Your task to perform on an android device: Search for seafood restaurants on Google Maps Image 0: 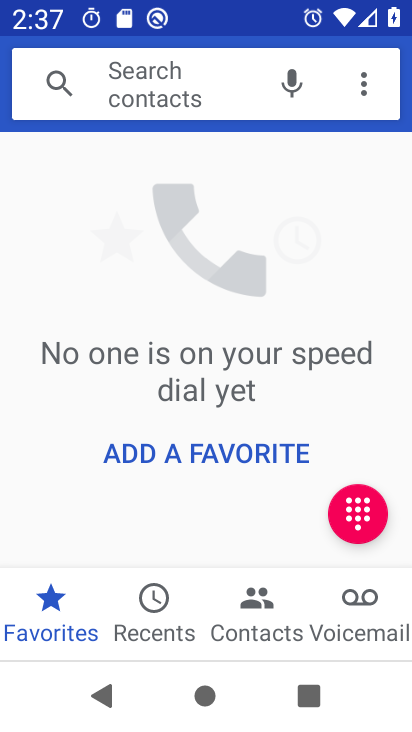
Step 0: press home button
Your task to perform on an android device: Search for seafood restaurants on Google Maps Image 1: 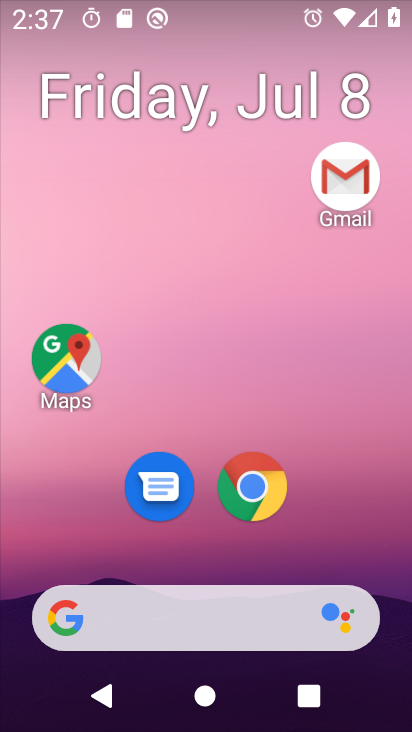
Step 1: drag from (351, 533) to (357, 185)
Your task to perform on an android device: Search for seafood restaurants on Google Maps Image 2: 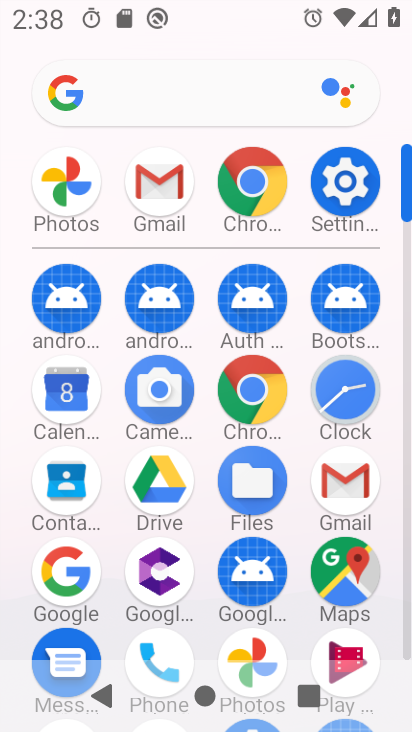
Step 2: click (351, 582)
Your task to perform on an android device: Search for seafood restaurants on Google Maps Image 3: 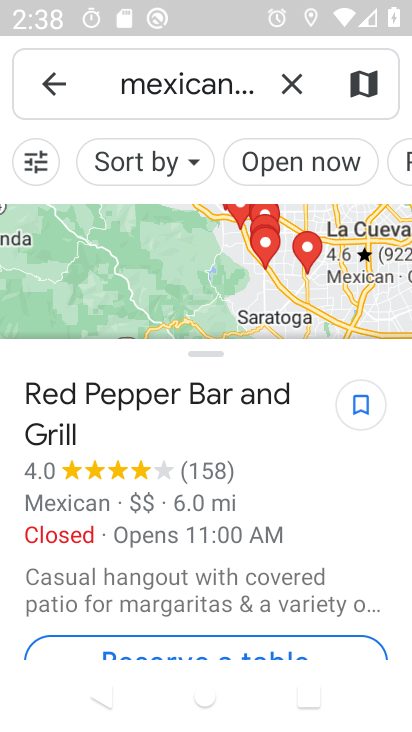
Step 3: press back button
Your task to perform on an android device: Search for seafood restaurants on Google Maps Image 4: 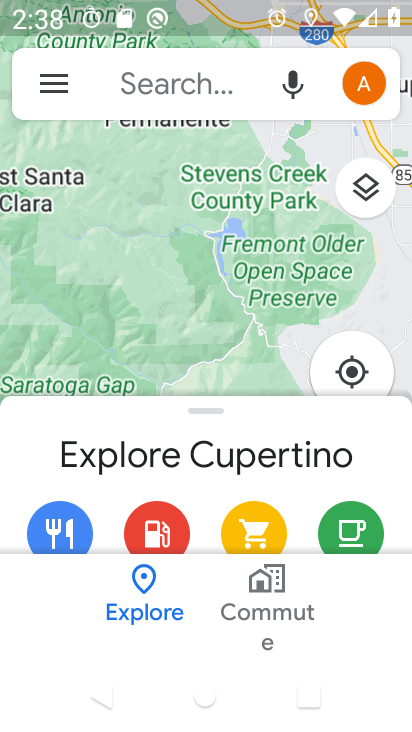
Step 4: click (185, 88)
Your task to perform on an android device: Search for seafood restaurants on Google Maps Image 5: 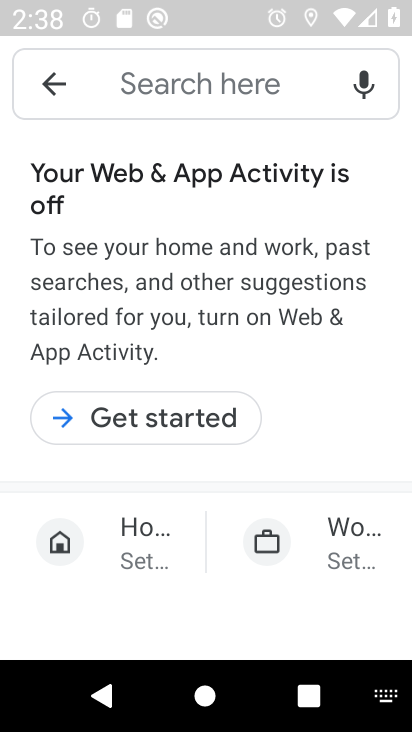
Step 5: type "seafood restaurants"
Your task to perform on an android device: Search for seafood restaurants on Google Maps Image 6: 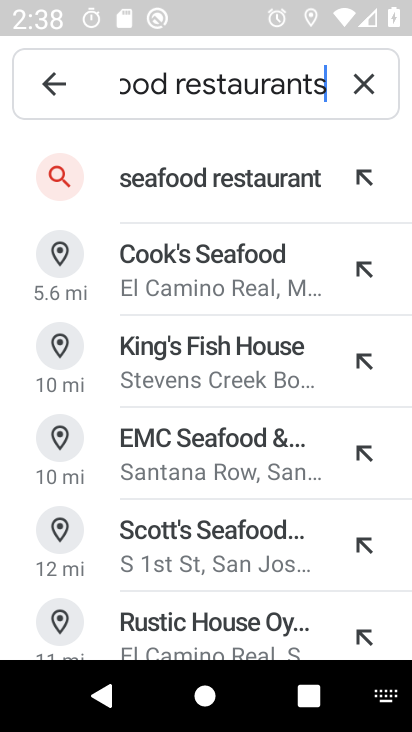
Step 6: click (254, 172)
Your task to perform on an android device: Search for seafood restaurants on Google Maps Image 7: 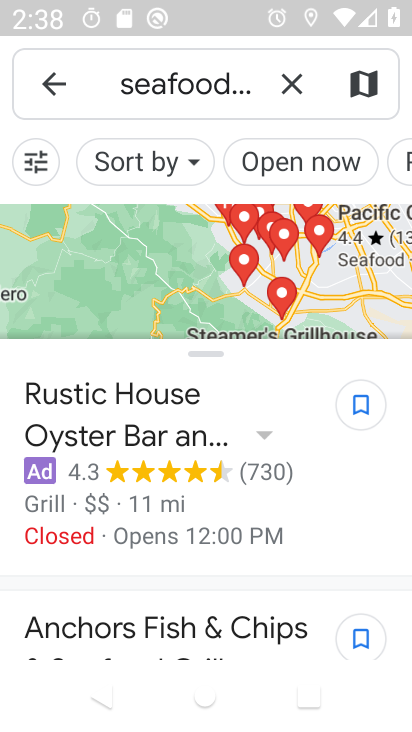
Step 7: task complete